Your task to perform on an android device: Show me productivity apps on the Play Store Image 0: 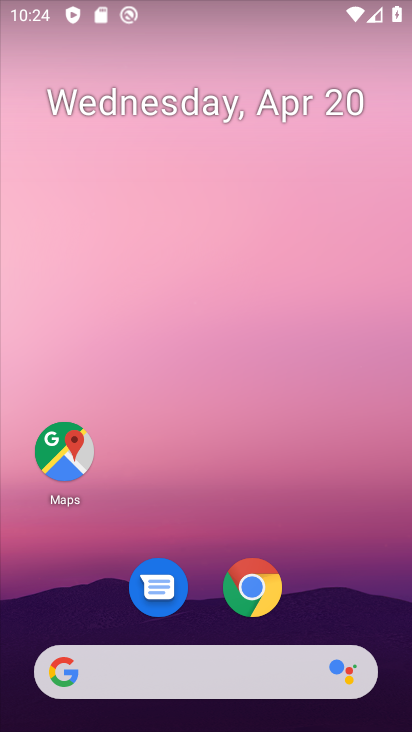
Step 0: drag from (209, 616) to (204, 115)
Your task to perform on an android device: Show me productivity apps on the Play Store Image 1: 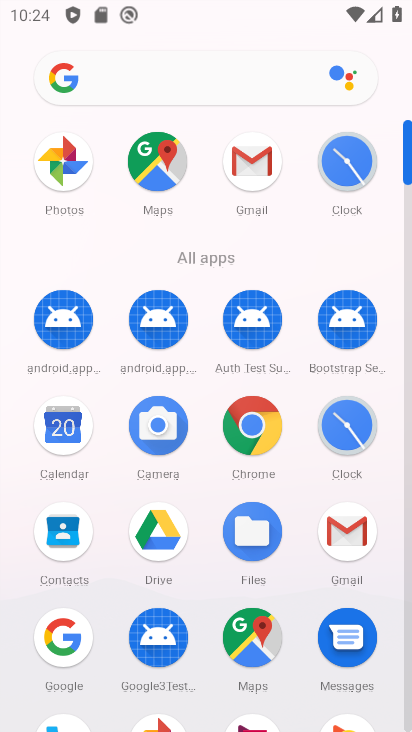
Step 1: drag from (206, 594) to (221, 137)
Your task to perform on an android device: Show me productivity apps on the Play Store Image 2: 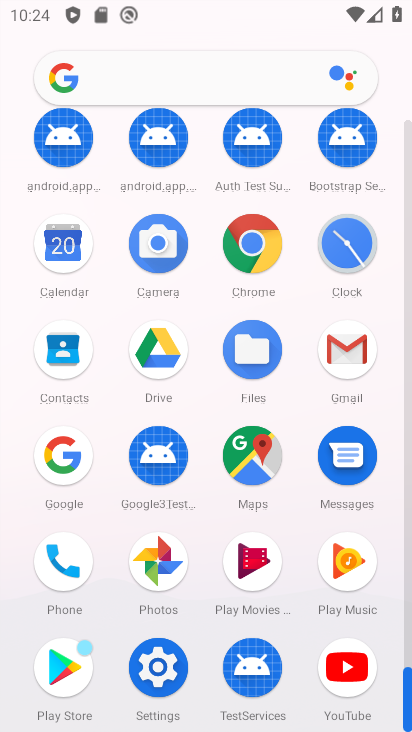
Step 2: click (55, 658)
Your task to perform on an android device: Show me productivity apps on the Play Store Image 3: 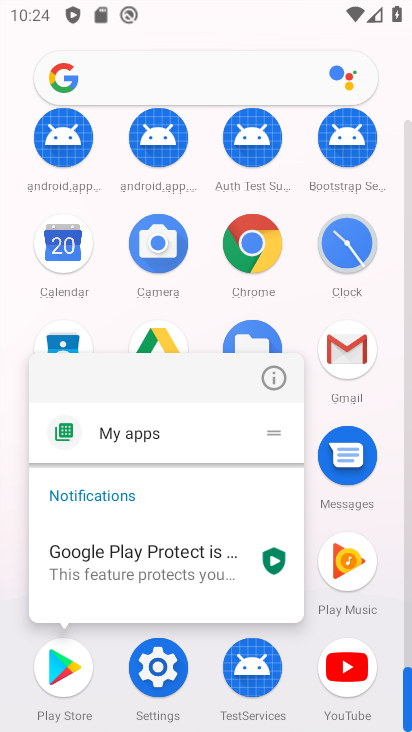
Step 3: click (55, 658)
Your task to perform on an android device: Show me productivity apps on the Play Store Image 4: 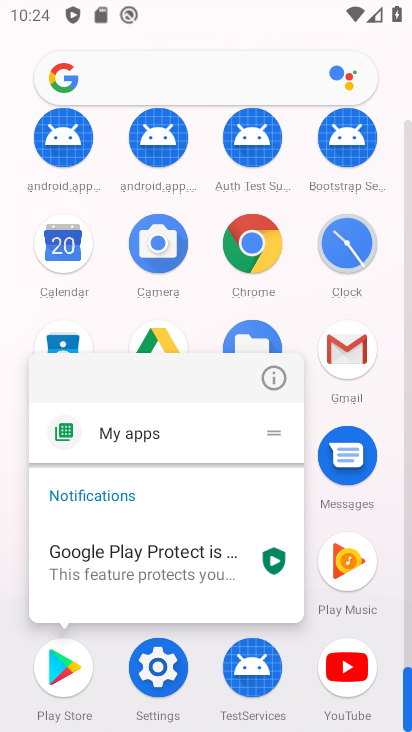
Step 4: click (17, 693)
Your task to perform on an android device: Show me productivity apps on the Play Store Image 5: 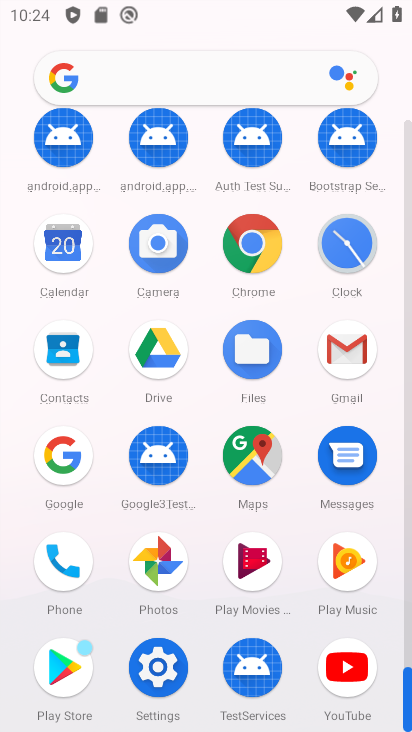
Step 5: click (56, 655)
Your task to perform on an android device: Show me productivity apps on the Play Store Image 6: 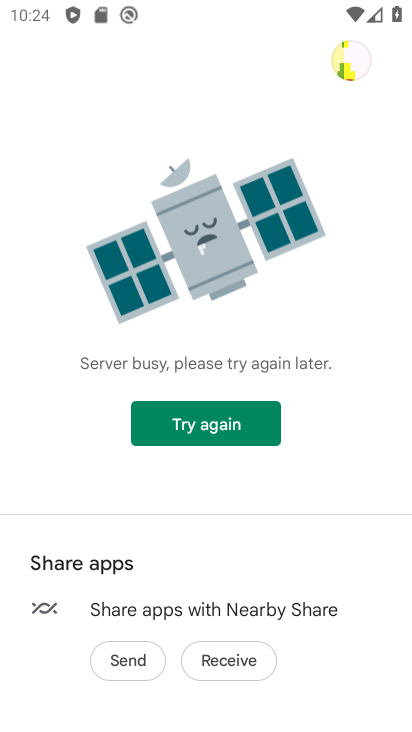
Step 6: press back button
Your task to perform on an android device: Show me productivity apps on the Play Store Image 7: 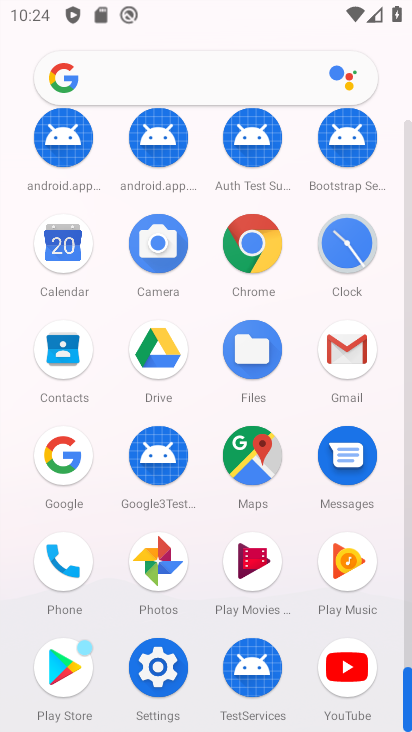
Step 7: click (61, 656)
Your task to perform on an android device: Show me productivity apps on the Play Store Image 8: 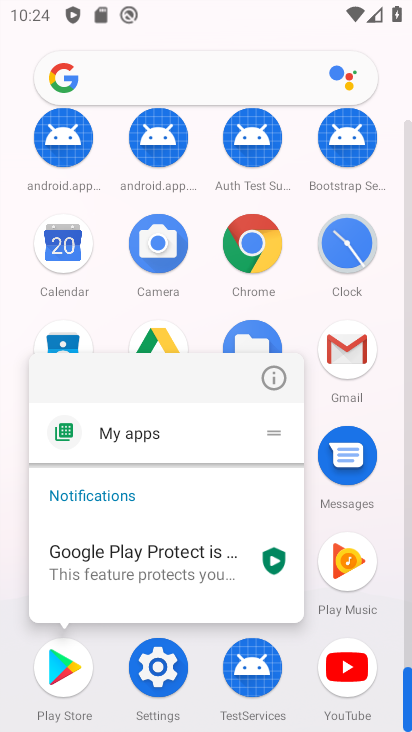
Step 8: click (58, 658)
Your task to perform on an android device: Show me productivity apps on the Play Store Image 9: 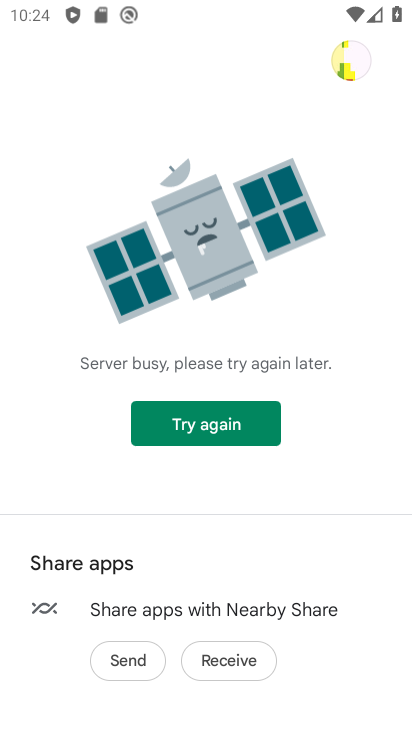
Step 9: click (221, 418)
Your task to perform on an android device: Show me productivity apps on the Play Store Image 10: 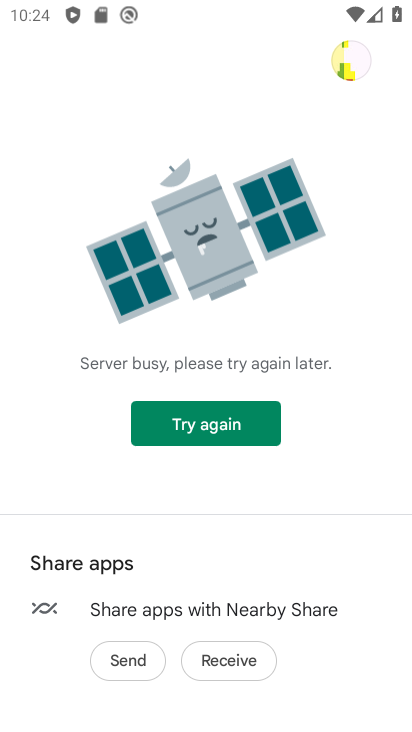
Step 10: task complete